Your task to perform on an android device: open app "Pandora - Music & Podcasts" (install if not already installed) Image 0: 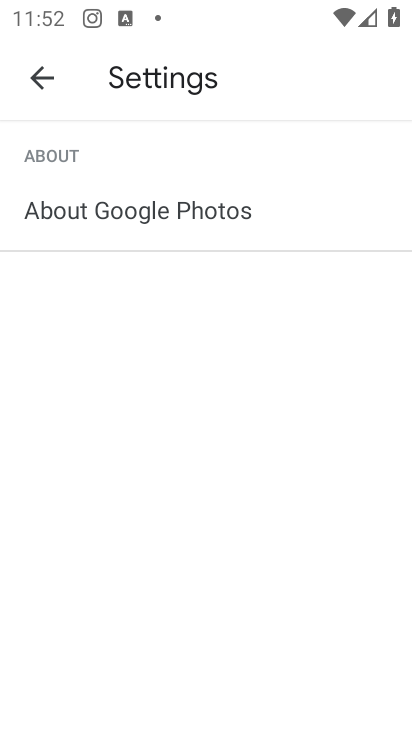
Step 0: press back button
Your task to perform on an android device: open app "Pandora - Music & Podcasts" (install if not already installed) Image 1: 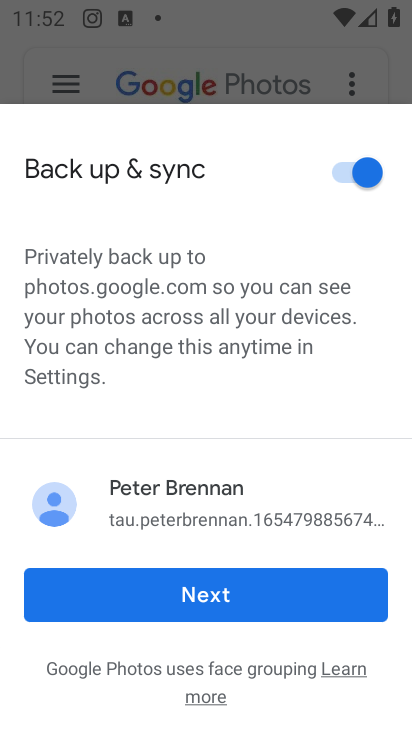
Step 1: press home button
Your task to perform on an android device: open app "Pandora - Music & Podcasts" (install if not already installed) Image 2: 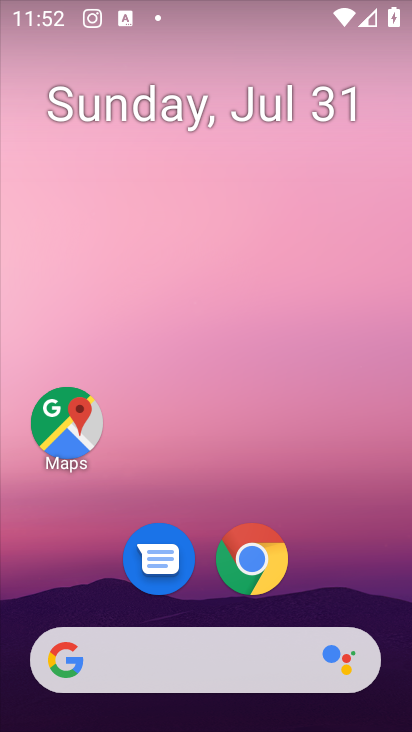
Step 2: drag from (54, 552) to (256, 8)
Your task to perform on an android device: open app "Pandora - Music & Podcasts" (install if not already installed) Image 3: 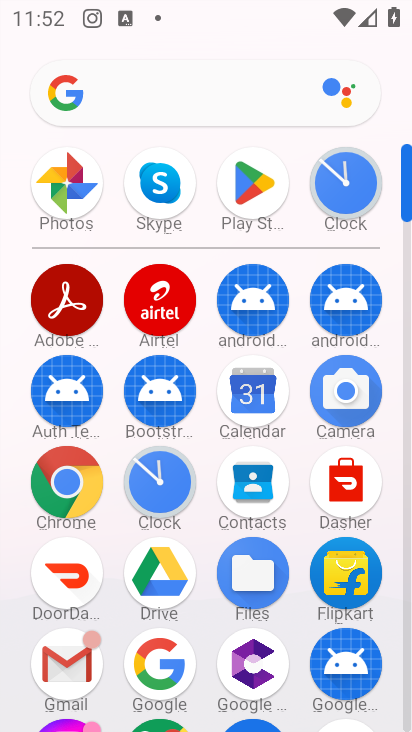
Step 3: click (256, 187)
Your task to perform on an android device: open app "Pandora - Music & Podcasts" (install if not already installed) Image 4: 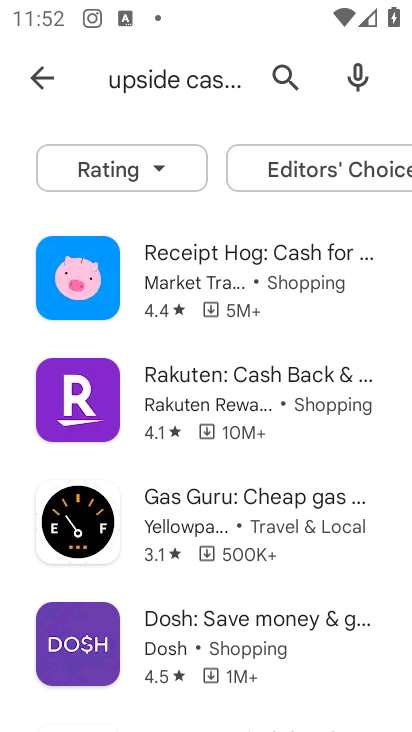
Step 4: click (304, 80)
Your task to perform on an android device: open app "Pandora - Music & Podcasts" (install if not already installed) Image 5: 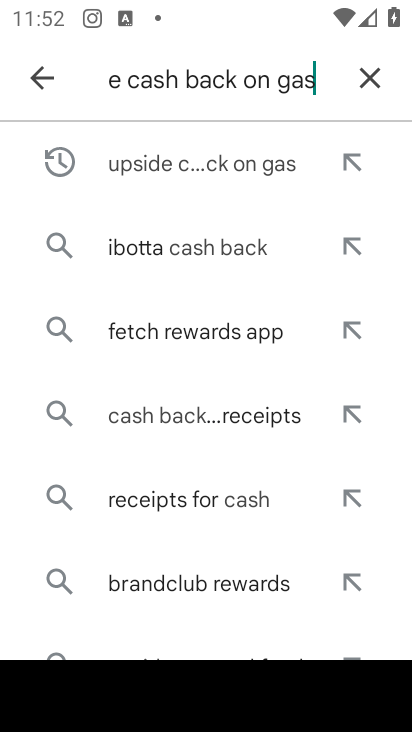
Step 5: click (370, 77)
Your task to perform on an android device: open app "Pandora - Music & Podcasts" (install if not already installed) Image 6: 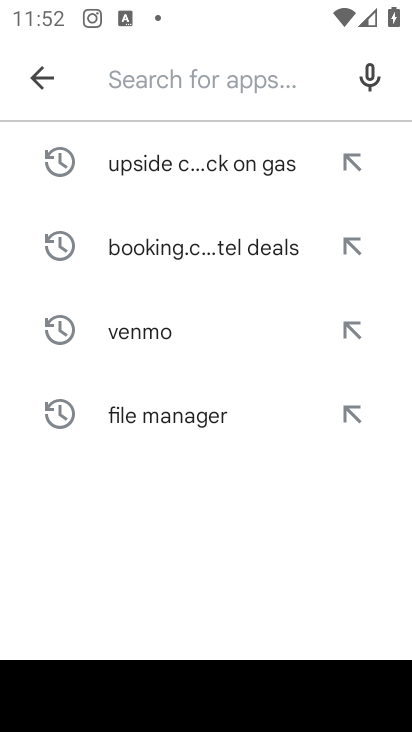
Step 6: click (166, 67)
Your task to perform on an android device: open app "Pandora - Music & Podcasts" (install if not already installed) Image 7: 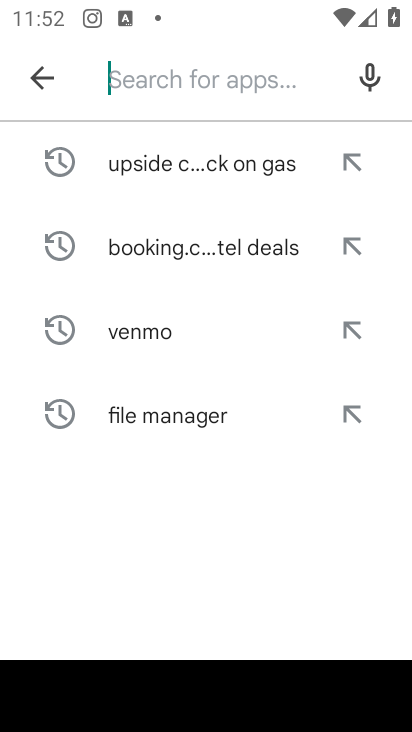
Step 7: type "pandora"
Your task to perform on an android device: open app "Pandora - Music & Podcasts" (install if not already installed) Image 8: 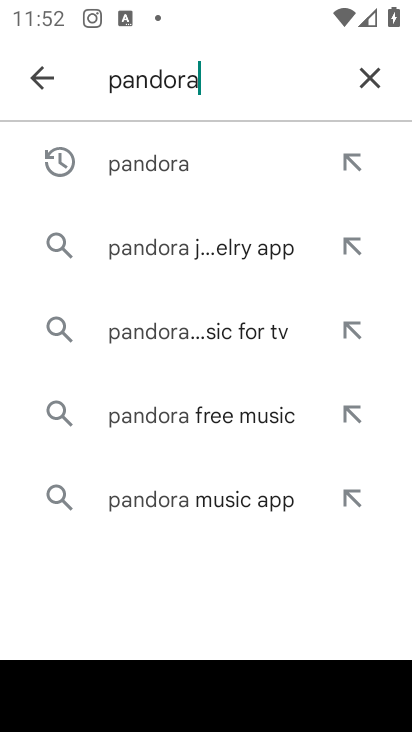
Step 8: click (159, 158)
Your task to perform on an android device: open app "Pandora - Music & Podcasts" (install if not already installed) Image 9: 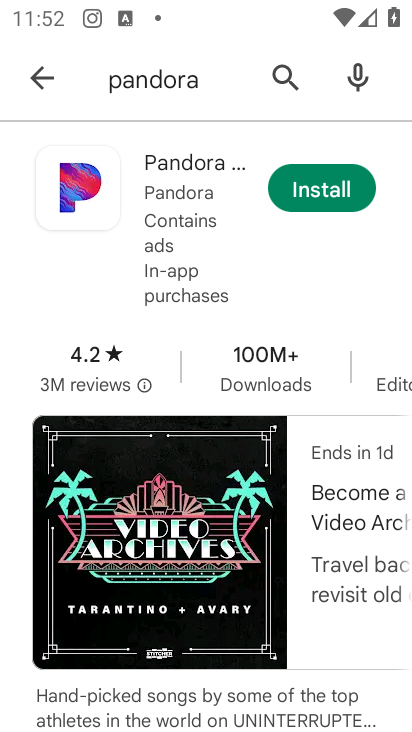
Step 9: click (330, 191)
Your task to perform on an android device: open app "Pandora - Music & Podcasts" (install if not already installed) Image 10: 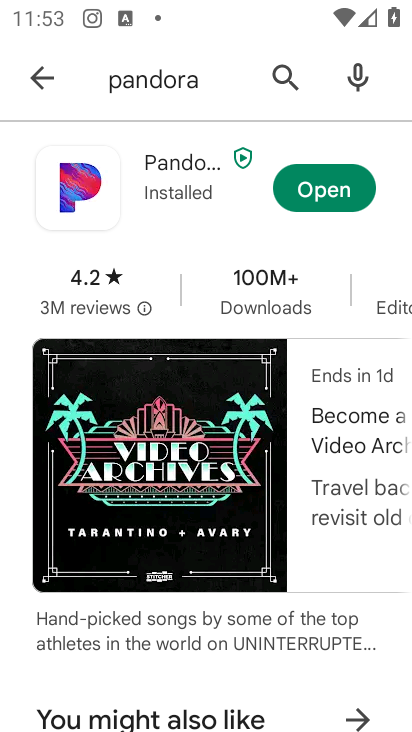
Step 10: click (329, 177)
Your task to perform on an android device: open app "Pandora - Music & Podcasts" (install if not already installed) Image 11: 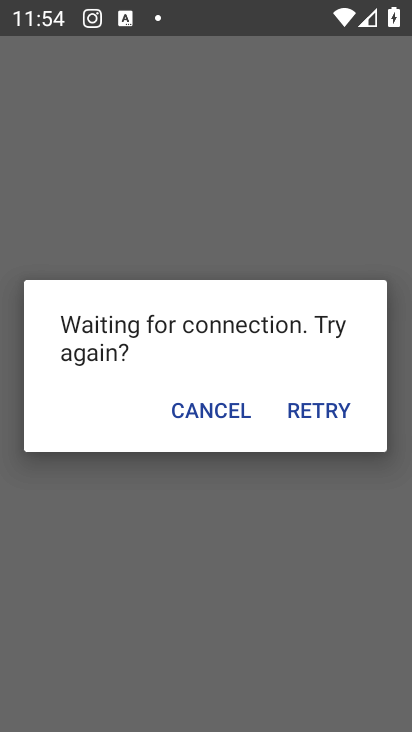
Step 11: task complete